Your task to perform on an android device: turn on bluetooth scan Image 0: 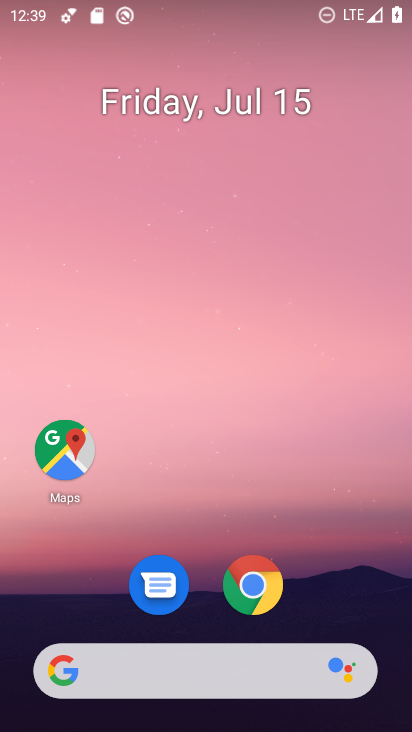
Step 0: drag from (252, 518) to (263, 63)
Your task to perform on an android device: turn on bluetooth scan Image 1: 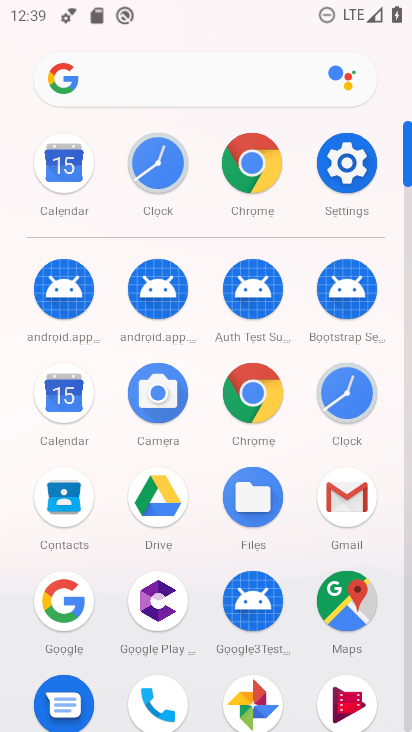
Step 1: click (361, 159)
Your task to perform on an android device: turn on bluetooth scan Image 2: 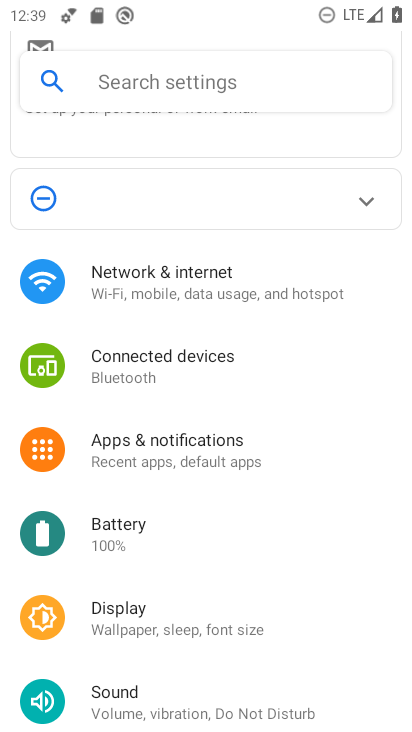
Step 2: drag from (210, 591) to (218, 237)
Your task to perform on an android device: turn on bluetooth scan Image 3: 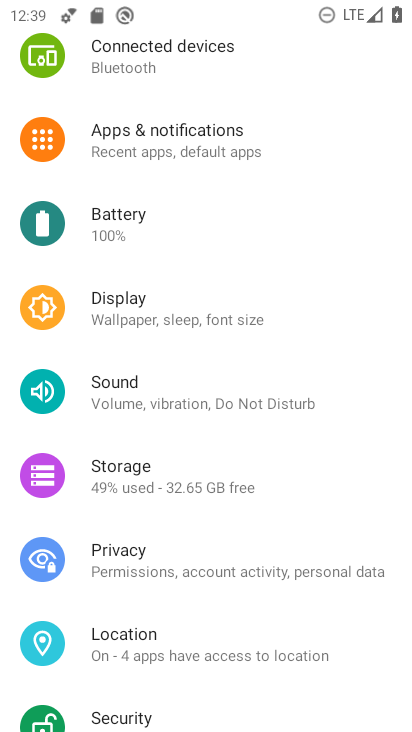
Step 3: click (195, 639)
Your task to perform on an android device: turn on bluetooth scan Image 4: 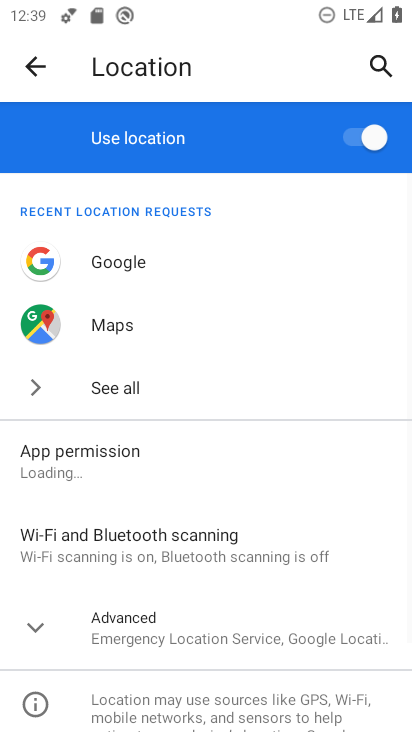
Step 4: click (255, 552)
Your task to perform on an android device: turn on bluetooth scan Image 5: 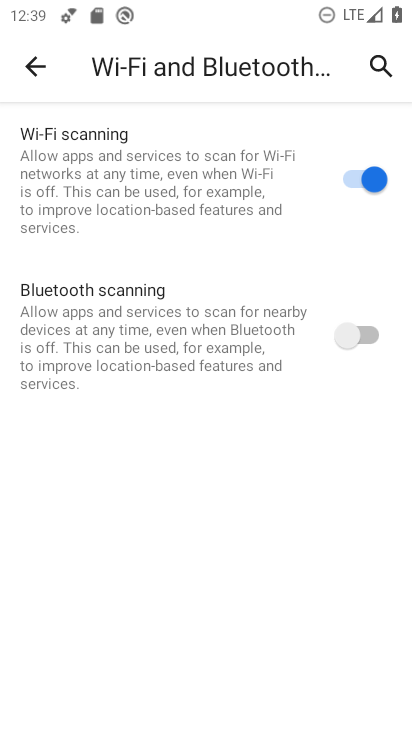
Step 5: click (367, 336)
Your task to perform on an android device: turn on bluetooth scan Image 6: 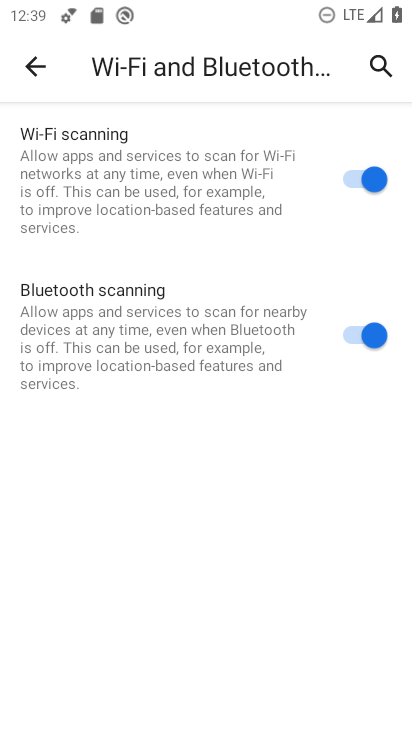
Step 6: task complete